Your task to perform on an android device: Search for sushi restaurants on Maps Image 0: 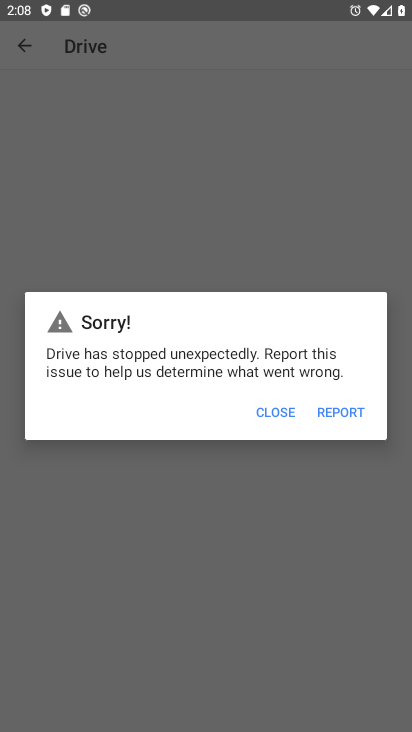
Step 0: press home button
Your task to perform on an android device: Search for sushi restaurants on Maps Image 1: 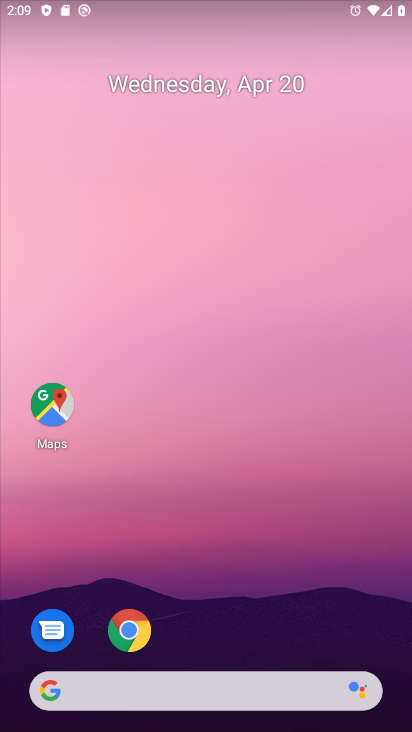
Step 1: click (56, 407)
Your task to perform on an android device: Search for sushi restaurants on Maps Image 2: 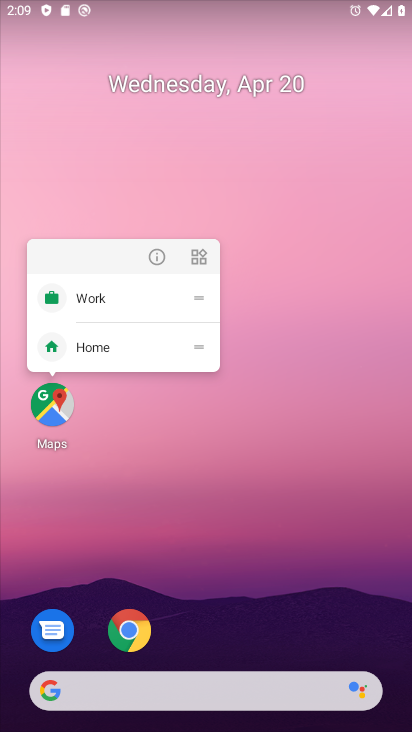
Step 2: click (49, 417)
Your task to perform on an android device: Search for sushi restaurants on Maps Image 3: 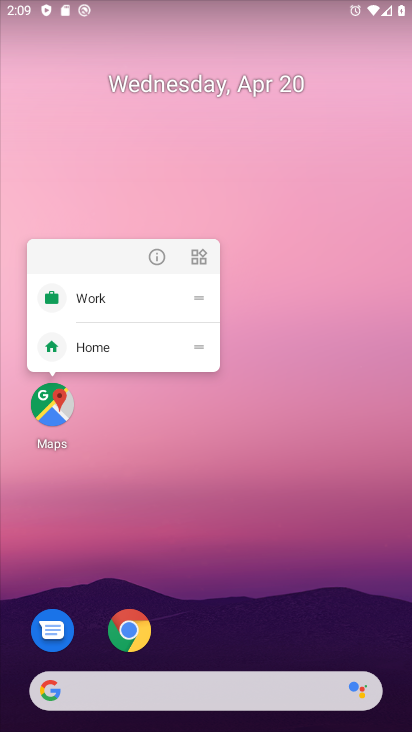
Step 3: click (49, 417)
Your task to perform on an android device: Search for sushi restaurants on Maps Image 4: 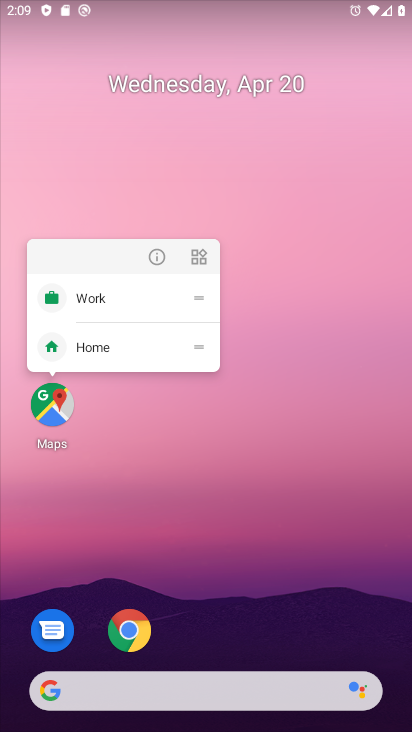
Step 4: click (58, 414)
Your task to perform on an android device: Search for sushi restaurants on Maps Image 5: 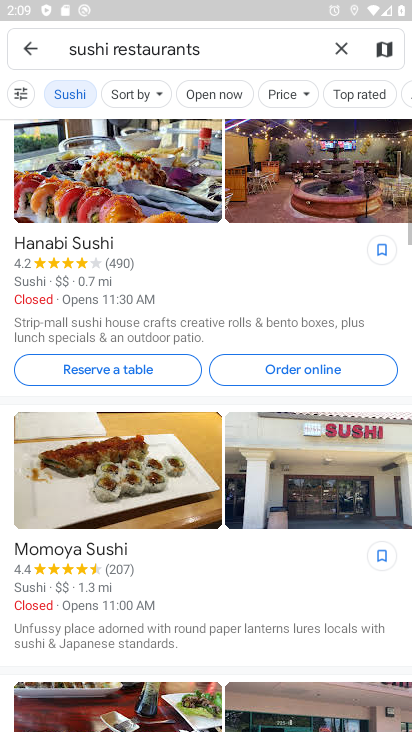
Step 5: task complete